Your task to perform on an android device: turn on javascript in the chrome app Image 0: 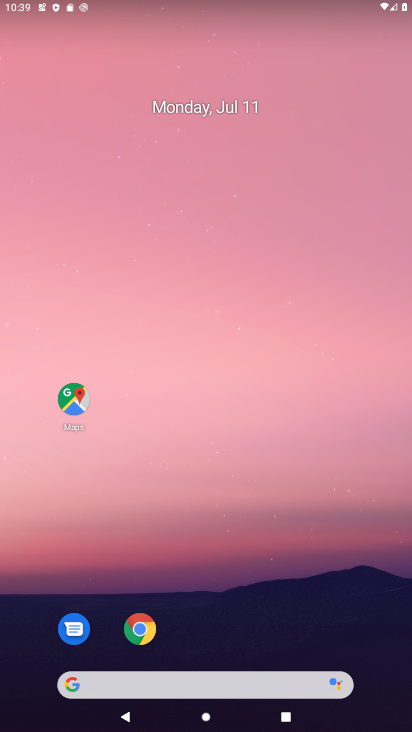
Step 0: click (152, 646)
Your task to perform on an android device: turn on javascript in the chrome app Image 1: 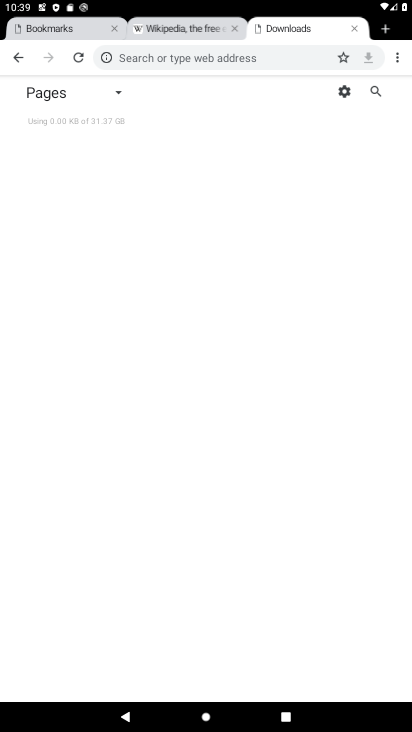
Step 1: click (392, 65)
Your task to perform on an android device: turn on javascript in the chrome app Image 2: 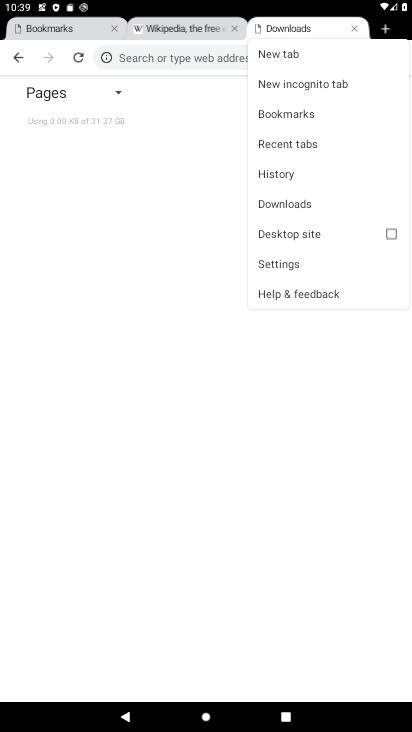
Step 2: click (296, 266)
Your task to perform on an android device: turn on javascript in the chrome app Image 3: 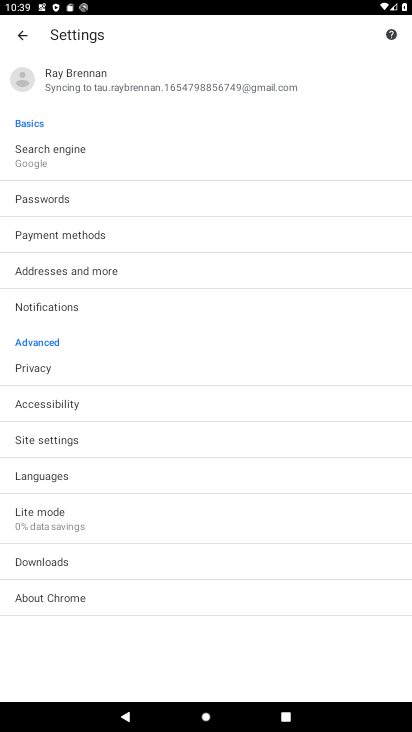
Step 3: click (117, 449)
Your task to perform on an android device: turn on javascript in the chrome app Image 4: 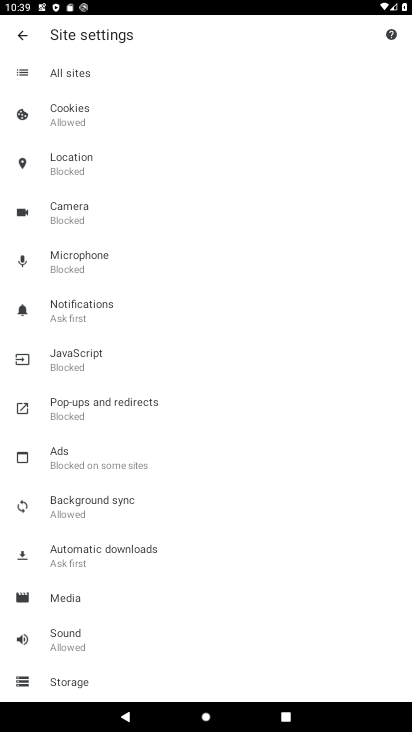
Step 4: click (127, 360)
Your task to perform on an android device: turn on javascript in the chrome app Image 5: 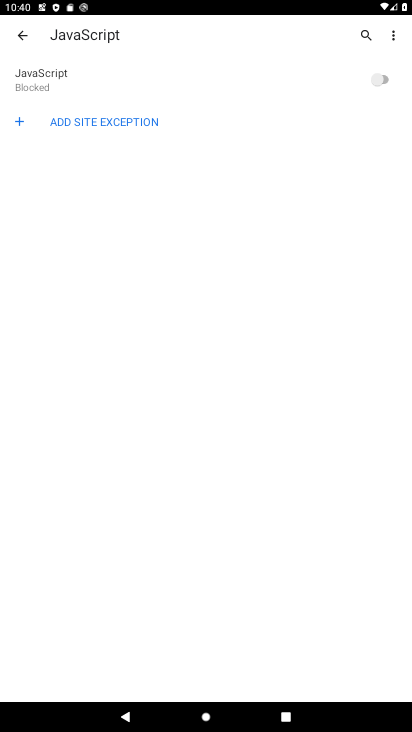
Step 5: click (388, 70)
Your task to perform on an android device: turn on javascript in the chrome app Image 6: 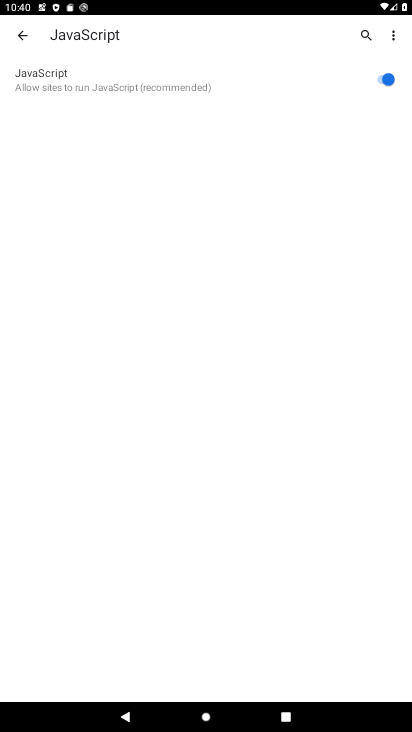
Step 6: task complete